Your task to perform on an android device: change the clock display to digital Image 0: 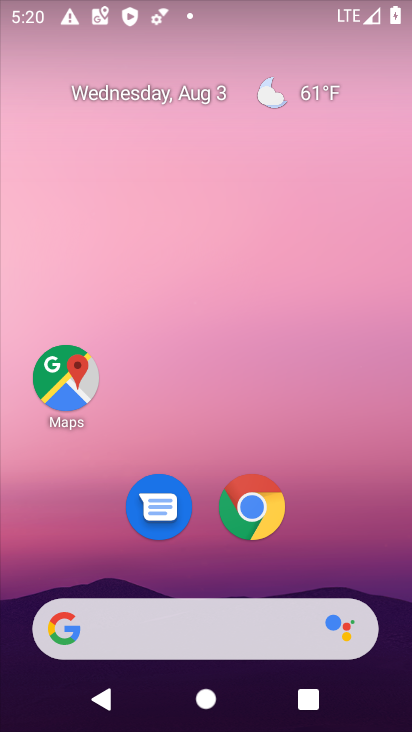
Step 0: drag from (353, 394) to (381, 75)
Your task to perform on an android device: change the clock display to digital Image 1: 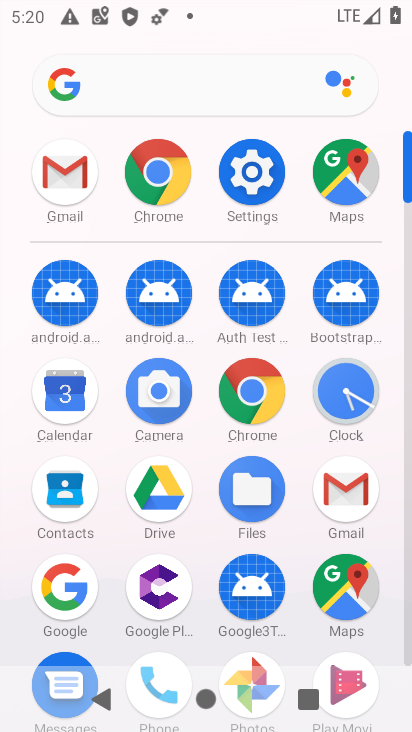
Step 1: drag from (306, 568) to (369, 207)
Your task to perform on an android device: change the clock display to digital Image 2: 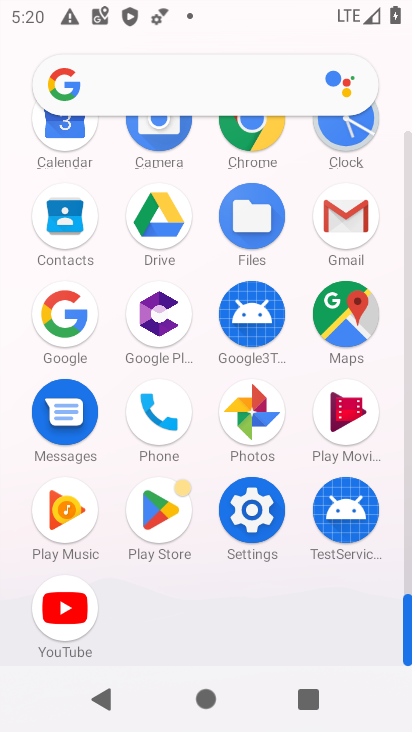
Step 2: drag from (200, 238) to (192, 534)
Your task to perform on an android device: change the clock display to digital Image 3: 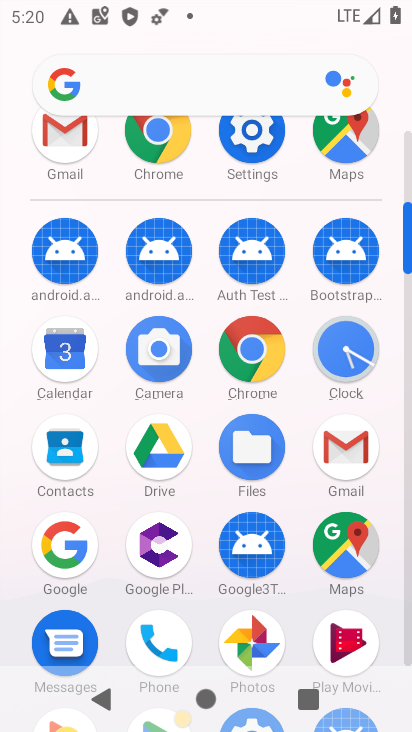
Step 3: click (338, 349)
Your task to perform on an android device: change the clock display to digital Image 4: 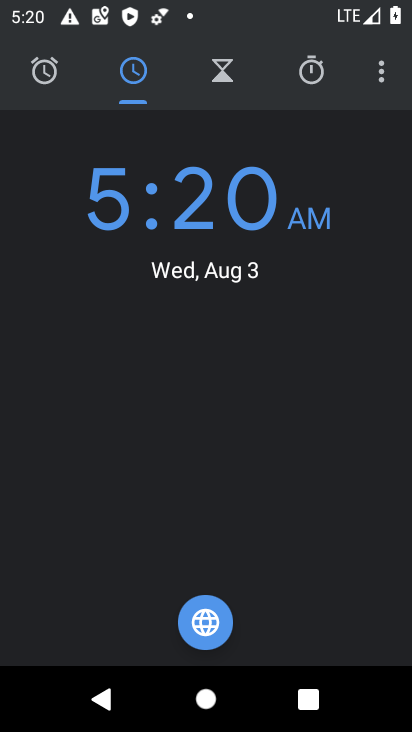
Step 4: click (387, 72)
Your task to perform on an android device: change the clock display to digital Image 5: 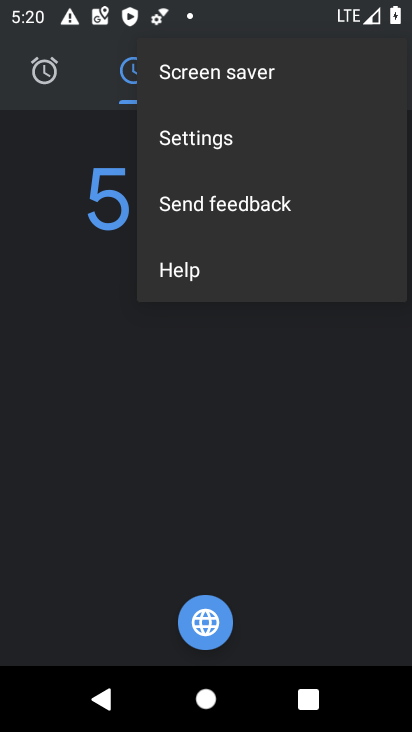
Step 5: click (258, 133)
Your task to perform on an android device: change the clock display to digital Image 6: 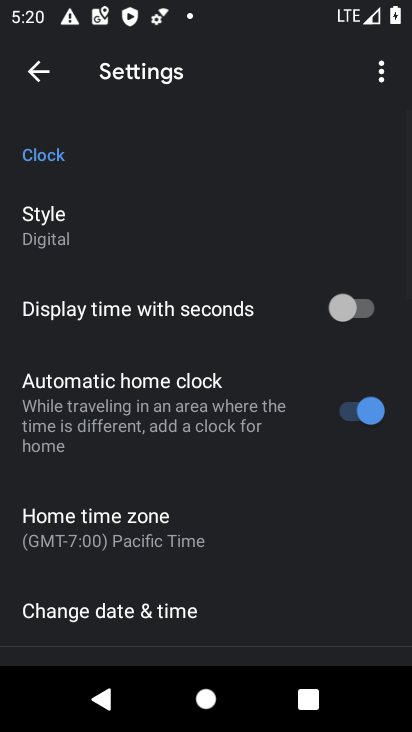
Step 6: click (86, 213)
Your task to perform on an android device: change the clock display to digital Image 7: 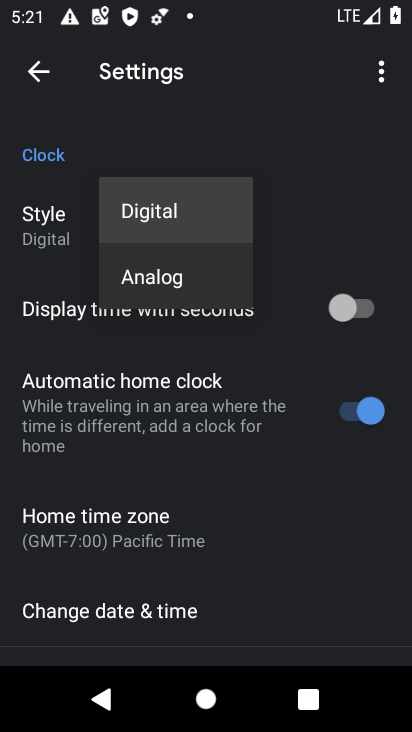
Step 7: task complete